Your task to perform on an android device: clear all cookies in the chrome app Image 0: 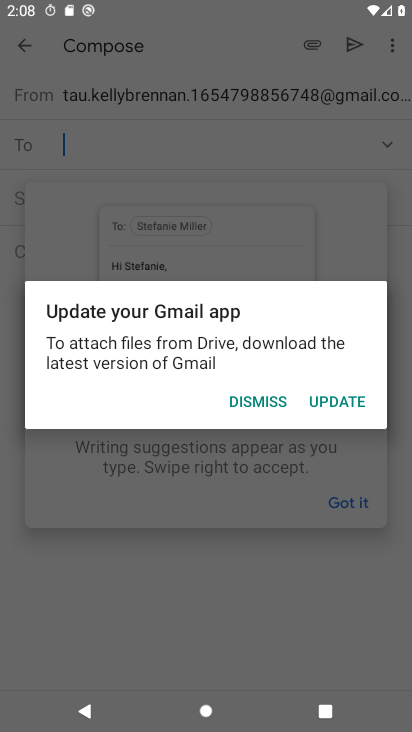
Step 0: press home button
Your task to perform on an android device: clear all cookies in the chrome app Image 1: 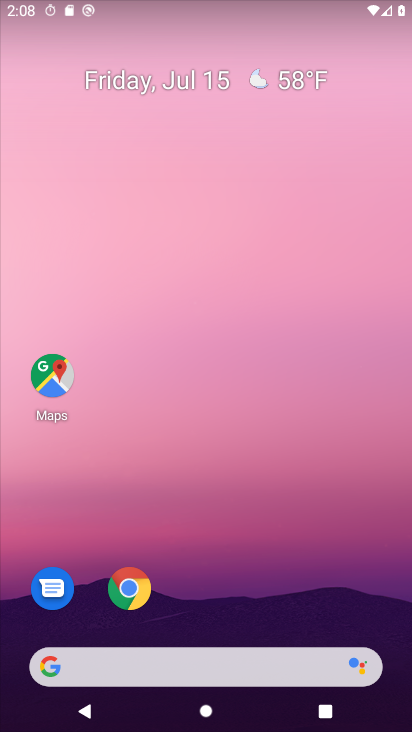
Step 1: click (131, 588)
Your task to perform on an android device: clear all cookies in the chrome app Image 2: 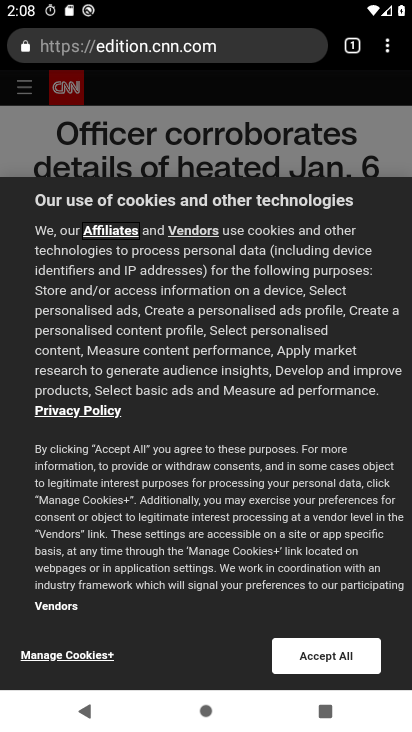
Step 2: click (391, 40)
Your task to perform on an android device: clear all cookies in the chrome app Image 3: 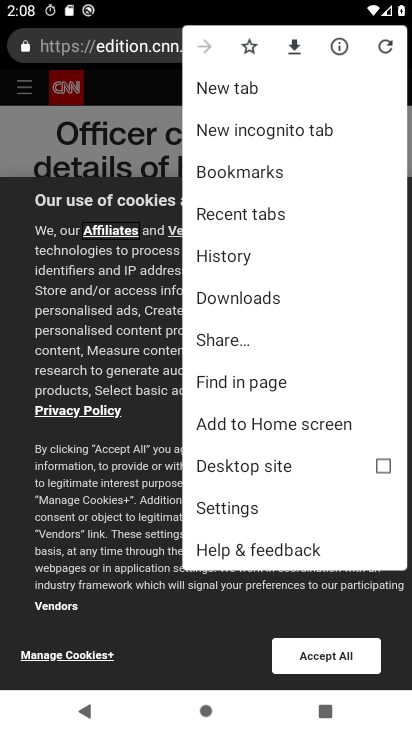
Step 3: click (224, 266)
Your task to perform on an android device: clear all cookies in the chrome app Image 4: 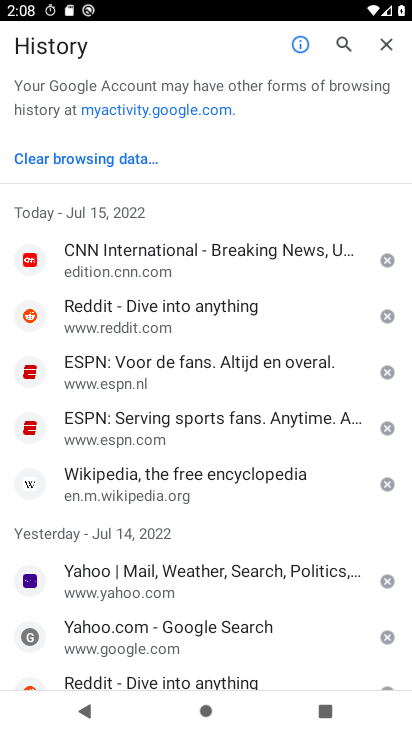
Step 4: click (62, 156)
Your task to perform on an android device: clear all cookies in the chrome app Image 5: 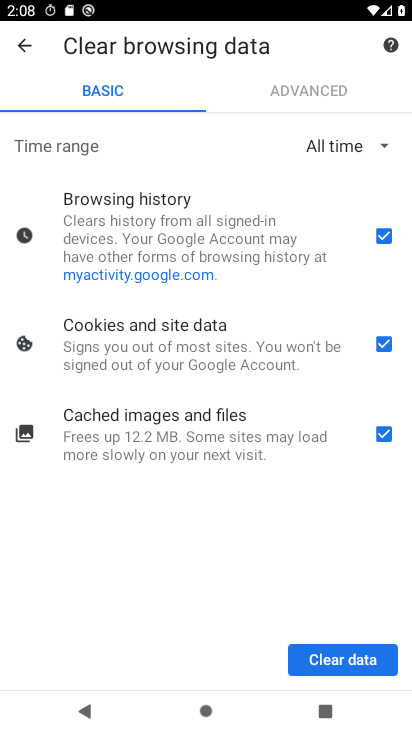
Step 5: click (357, 265)
Your task to perform on an android device: clear all cookies in the chrome app Image 6: 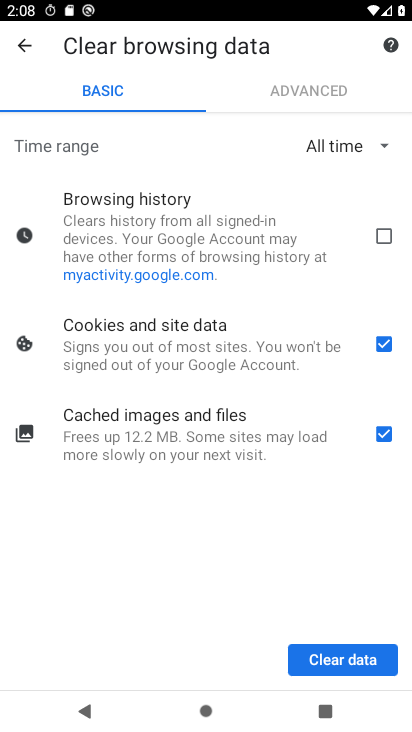
Step 6: click (380, 431)
Your task to perform on an android device: clear all cookies in the chrome app Image 7: 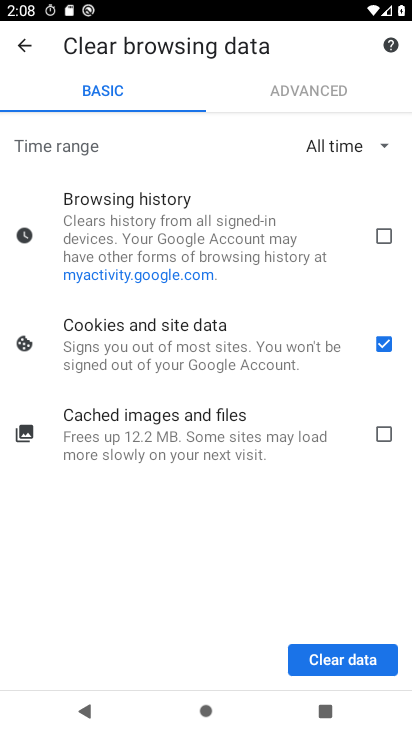
Step 7: click (332, 658)
Your task to perform on an android device: clear all cookies in the chrome app Image 8: 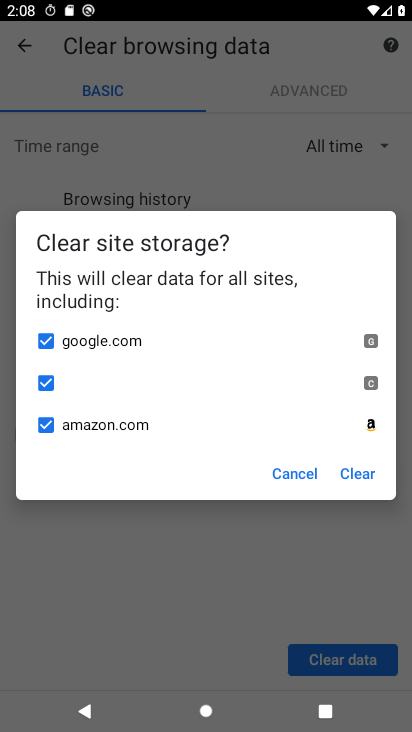
Step 8: click (355, 471)
Your task to perform on an android device: clear all cookies in the chrome app Image 9: 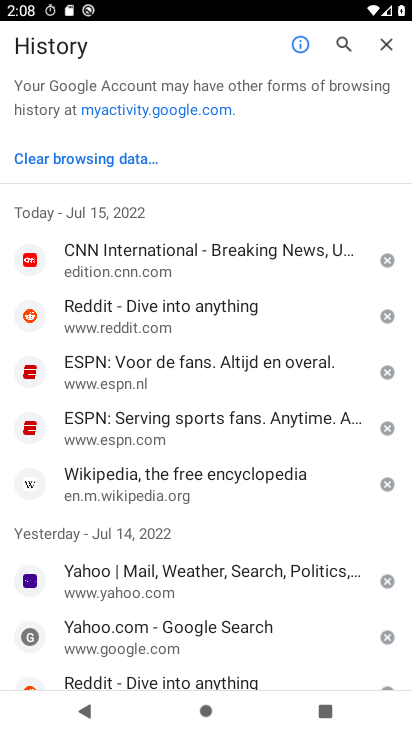
Step 9: task complete